Your task to perform on an android device: Is it going to rain tomorrow? Image 0: 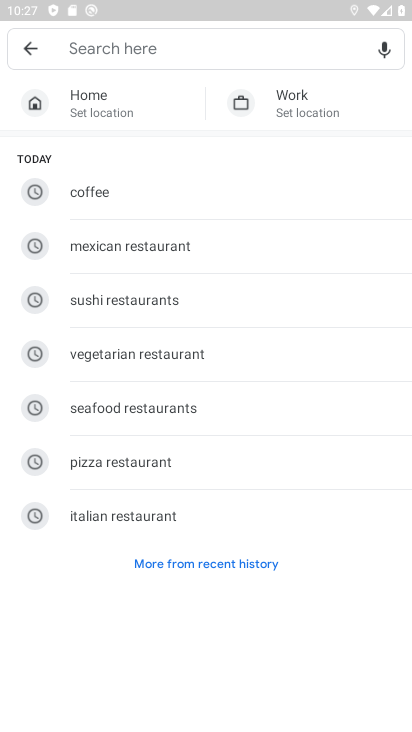
Step 0: press home button
Your task to perform on an android device: Is it going to rain tomorrow? Image 1: 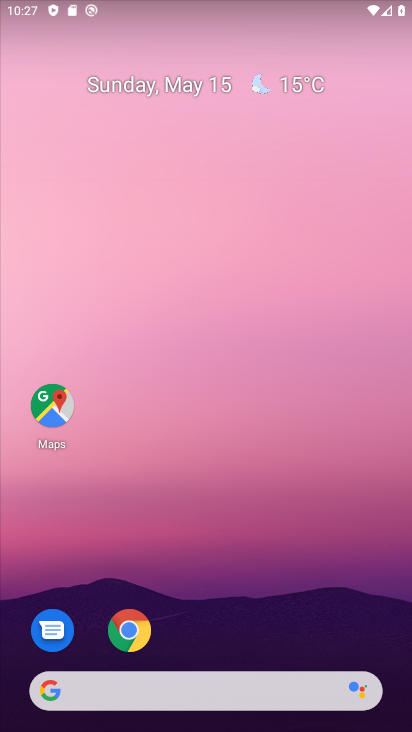
Step 1: click (262, 87)
Your task to perform on an android device: Is it going to rain tomorrow? Image 2: 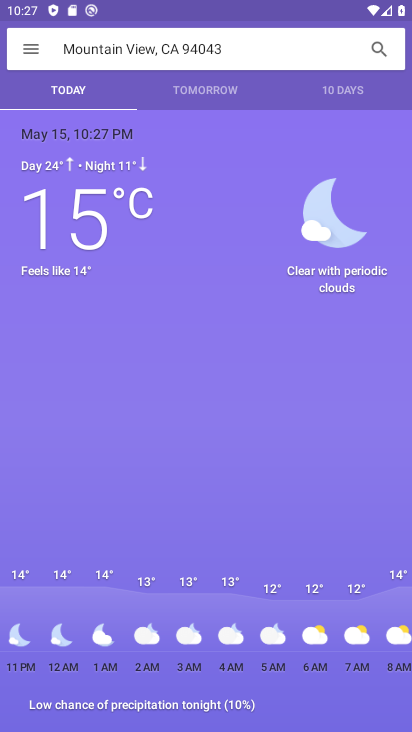
Step 2: click (229, 94)
Your task to perform on an android device: Is it going to rain tomorrow? Image 3: 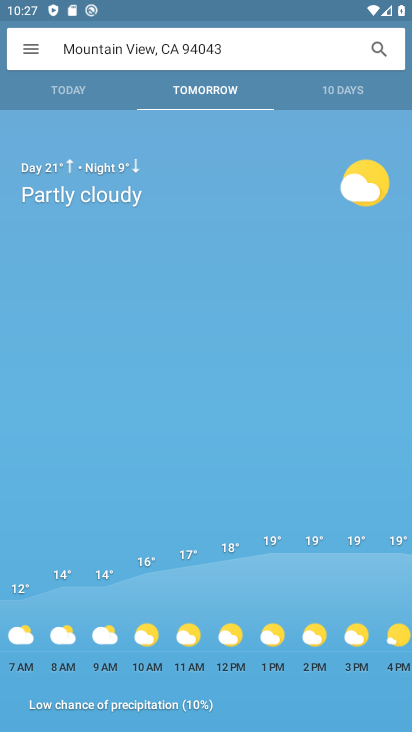
Step 3: task complete